Your task to perform on an android device: Search for Italian restaurants on Maps Image 0: 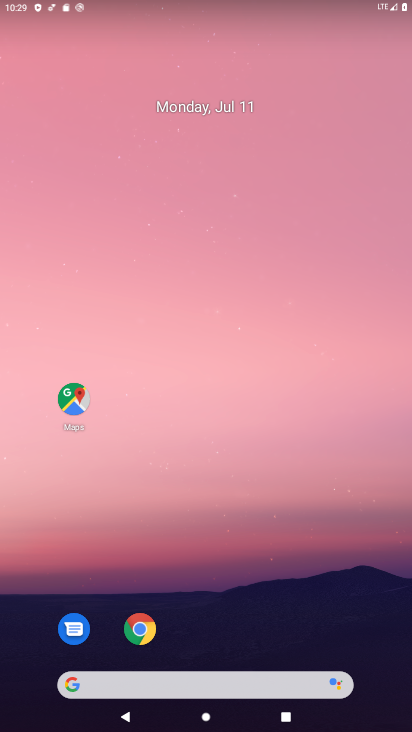
Step 0: drag from (199, 656) to (292, 144)
Your task to perform on an android device: Search for Italian restaurants on Maps Image 1: 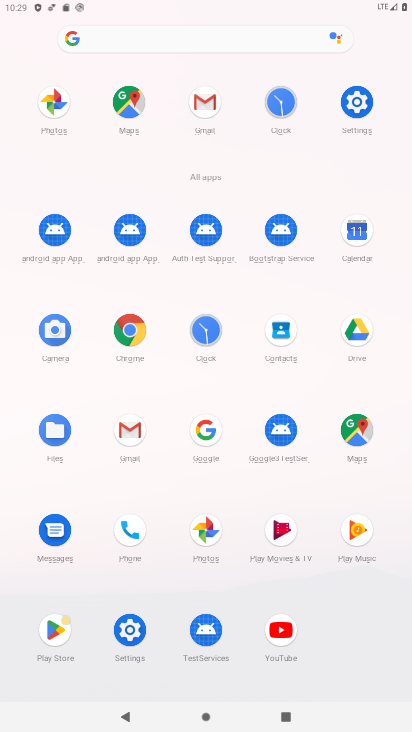
Step 1: click (359, 426)
Your task to perform on an android device: Search for Italian restaurants on Maps Image 2: 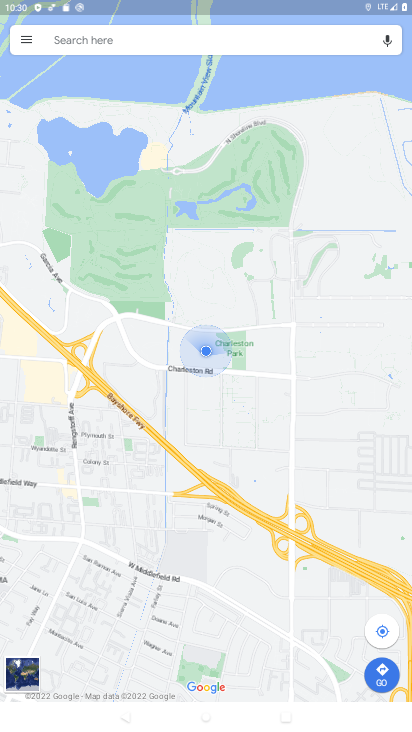
Step 2: click (124, 41)
Your task to perform on an android device: Search for Italian restaurants on Maps Image 3: 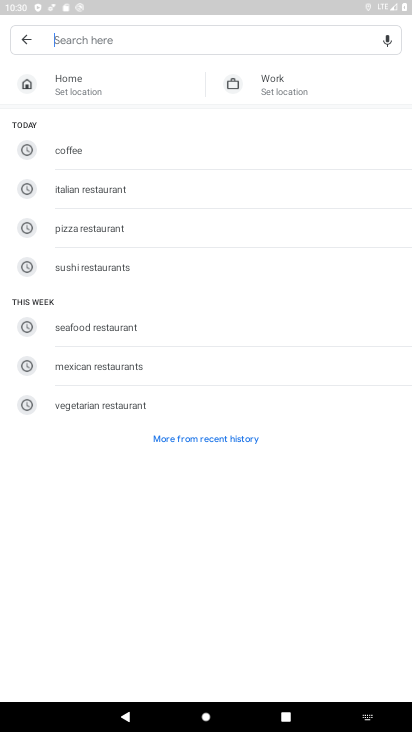
Step 3: type "Italian restaurants"
Your task to perform on an android device: Search for Italian restaurants on Maps Image 4: 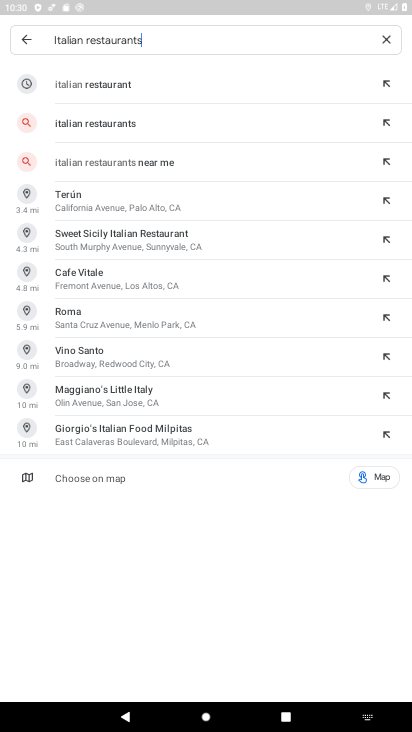
Step 4: click (141, 87)
Your task to perform on an android device: Search for Italian restaurants on Maps Image 5: 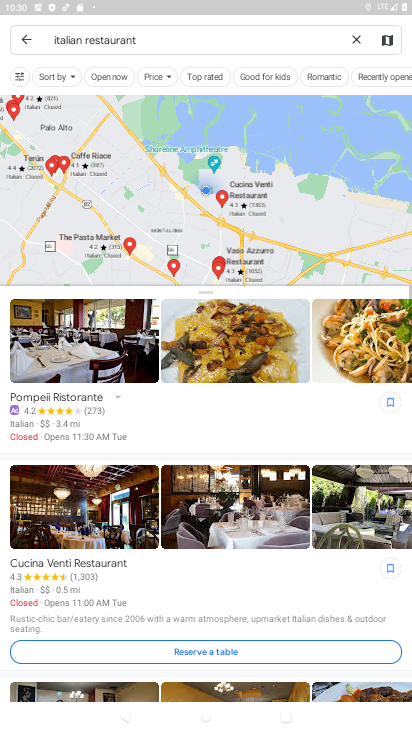
Step 5: task complete